Your task to perform on an android device: add a label to a message in the gmail app Image 0: 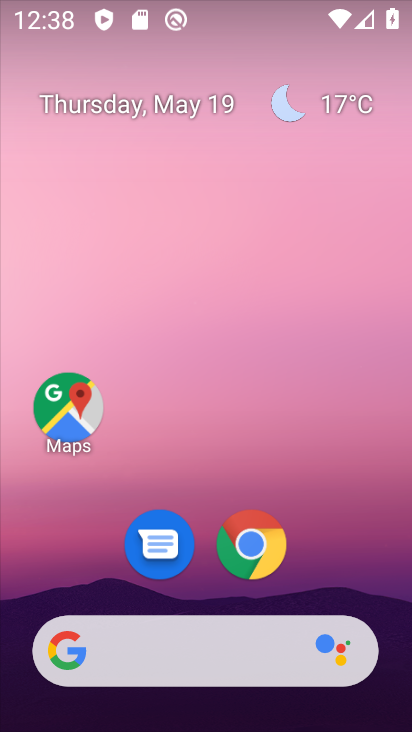
Step 0: drag from (216, 703) to (222, 229)
Your task to perform on an android device: add a label to a message in the gmail app Image 1: 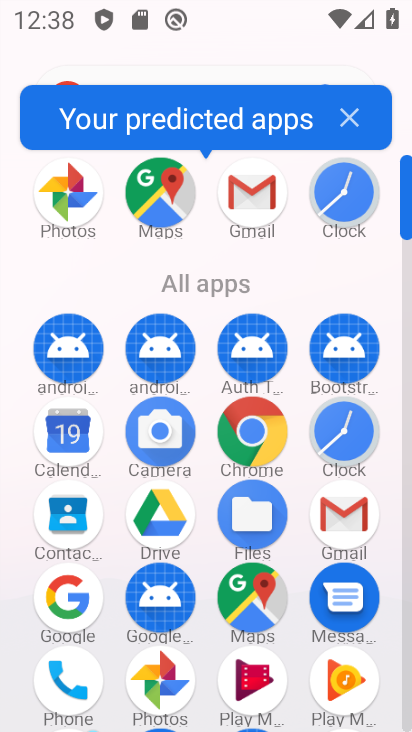
Step 1: click (347, 530)
Your task to perform on an android device: add a label to a message in the gmail app Image 2: 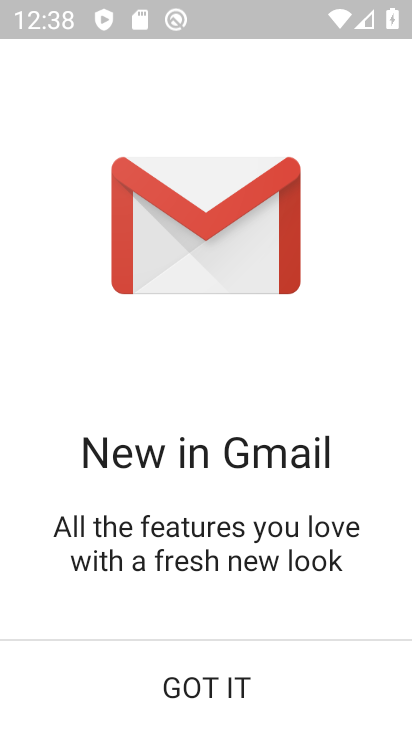
Step 2: click (202, 682)
Your task to perform on an android device: add a label to a message in the gmail app Image 3: 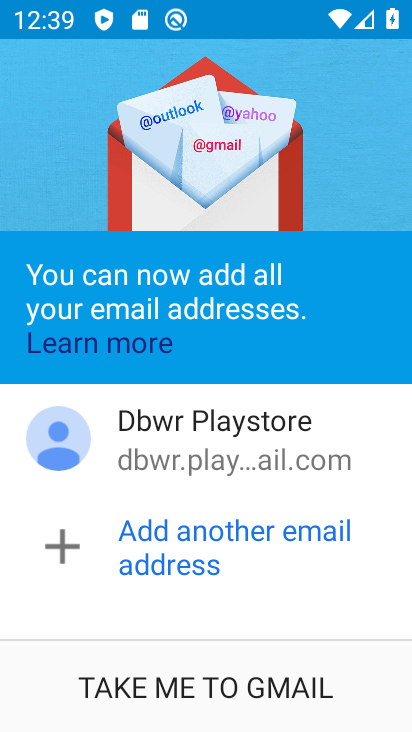
Step 3: click (237, 685)
Your task to perform on an android device: add a label to a message in the gmail app Image 4: 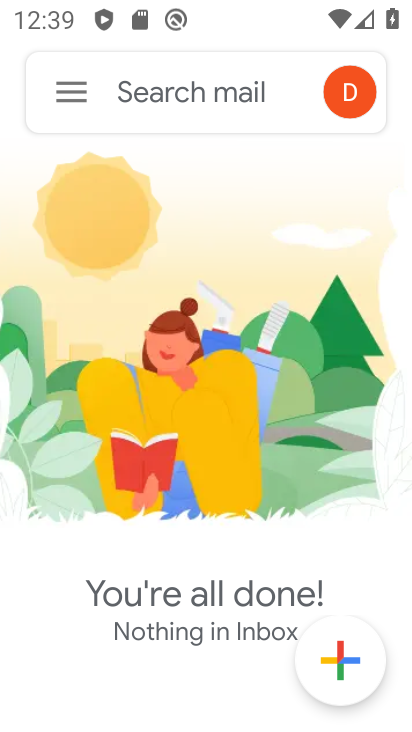
Step 4: task complete